Your task to perform on an android device: How do I get to the nearest JCPenney? Image 0: 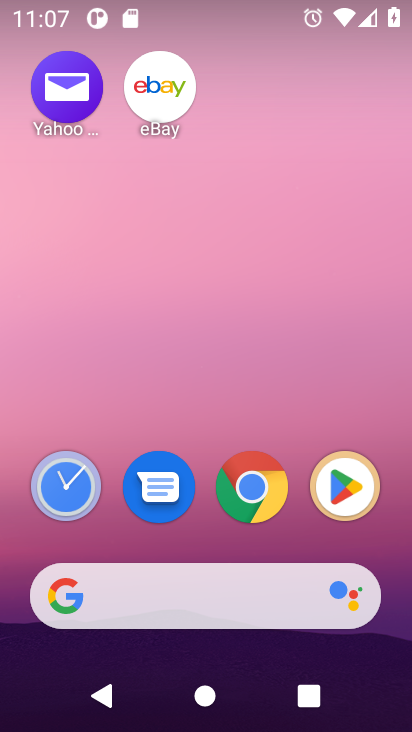
Step 0: drag from (211, 478) to (235, 45)
Your task to perform on an android device: How do I get to the nearest JCPenney? Image 1: 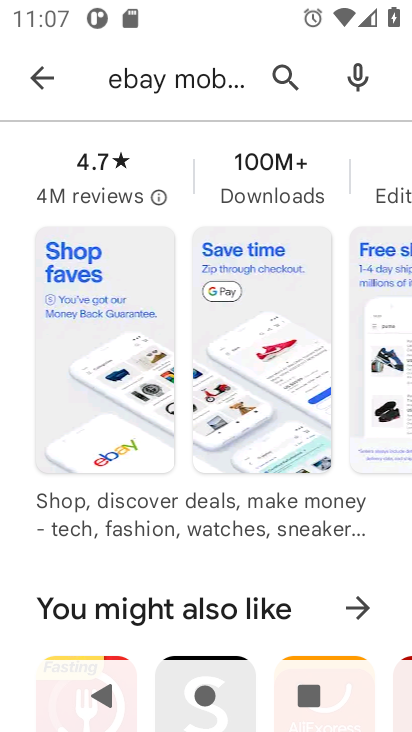
Step 1: press home button
Your task to perform on an android device: How do I get to the nearest JCPenney? Image 2: 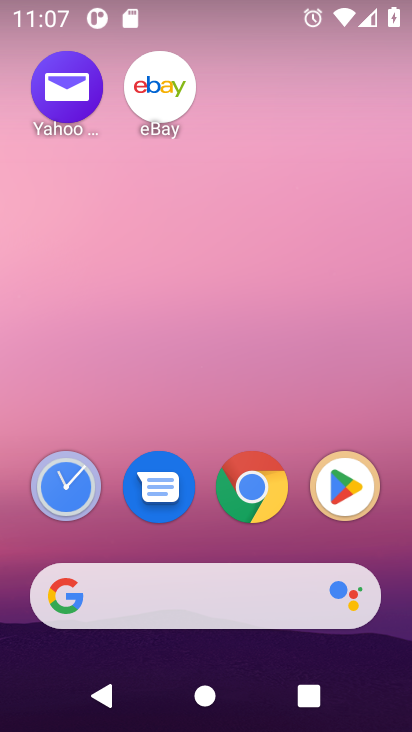
Step 2: click (253, 484)
Your task to perform on an android device: How do I get to the nearest JCPenney? Image 3: 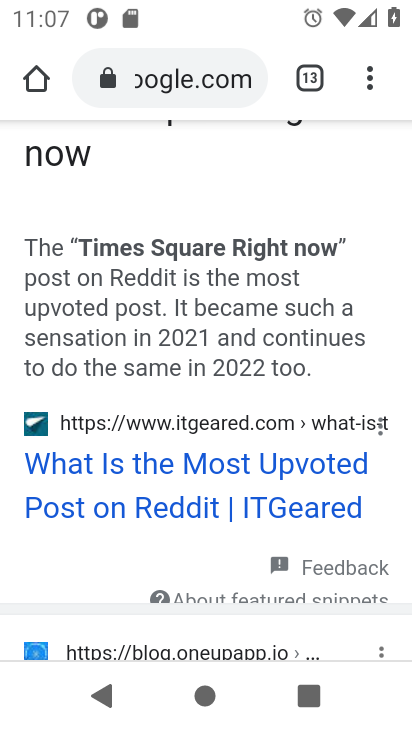
Step 3: drag from (260, 155) to (236, 463)
Your task to perform on an android device: How do I get to the nearest JCPenney? Image 4: 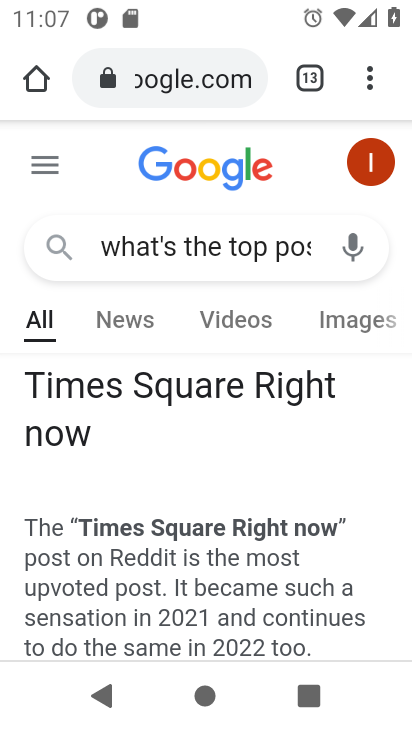
Step 4: drag from (367, 90) to (104, 163)
Your task to perform on an android device: How do I get to the nearest JCPenney? Image 5: 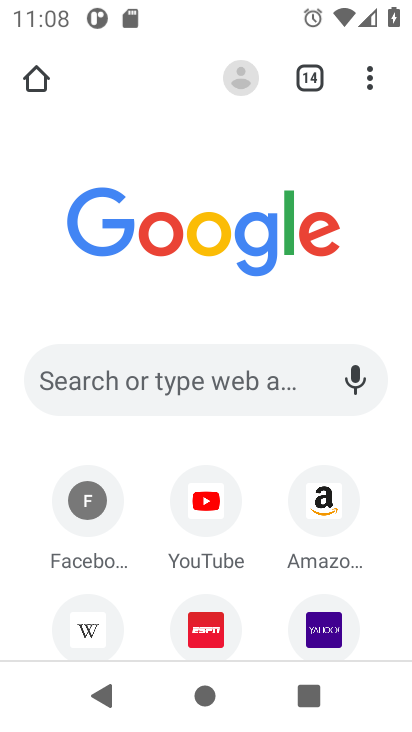
Step 5: click (146, 373)
Your task to perform on an android device: How do I get to the nearest JCPenney? Image 6: 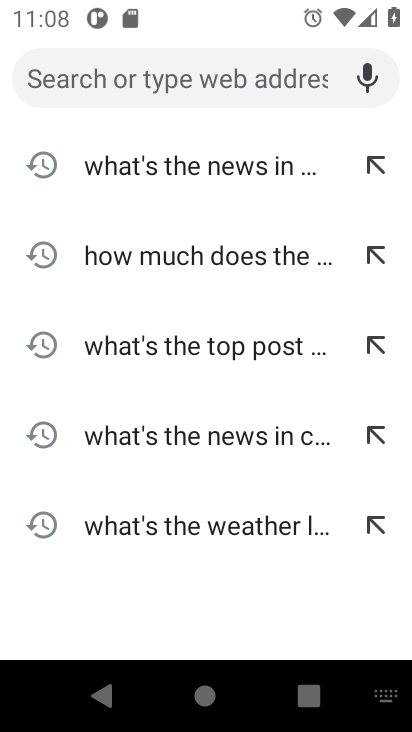
Step 6: type "How do I get to the nearest JCPenney?"
Your task to perform on an android device: How do I get to the nearest JCPenney? Image 7: 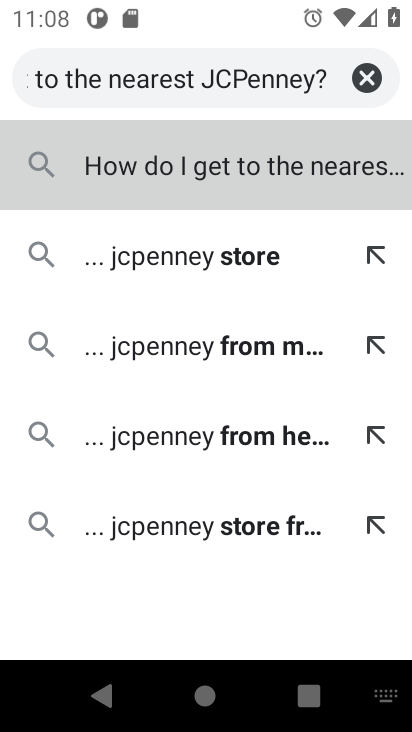
Step 7: type ""
Your task to perform on an android device: How do I get to the nearest JCPenney? Image 8: 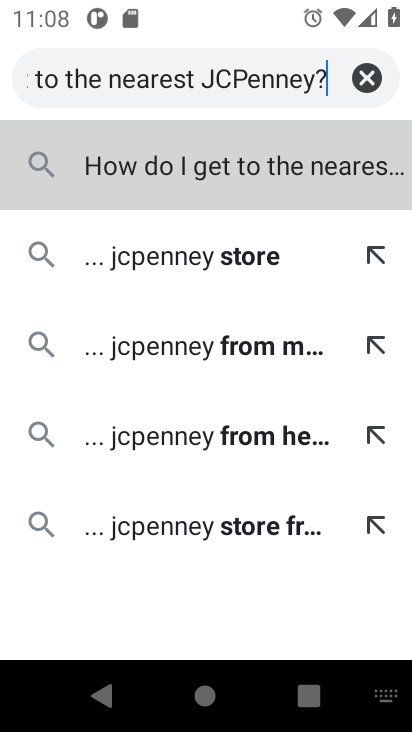
Step 8: click (244, 172)
Your task to perform on an android device: How do I get to the nearest JCPenney? Image 9: 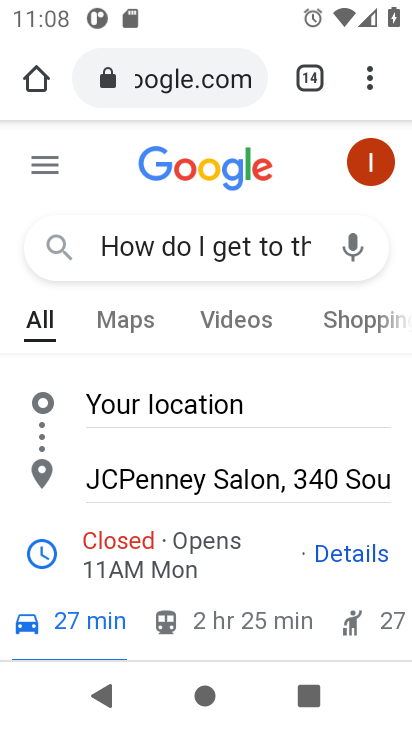
Step 9: task complete